Your task to perform on an android device: Open Google Chrome and open the bookmarks view Image 0: 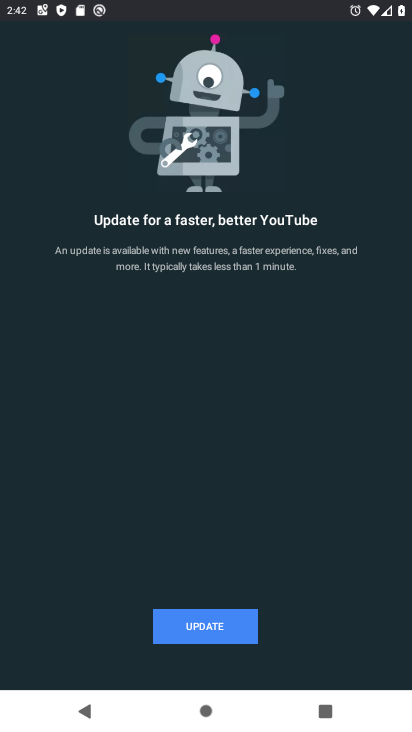
Step 0: press home button
Your task to perform on an android device: Open Google Chrome and open the bookmarks view Image 1: 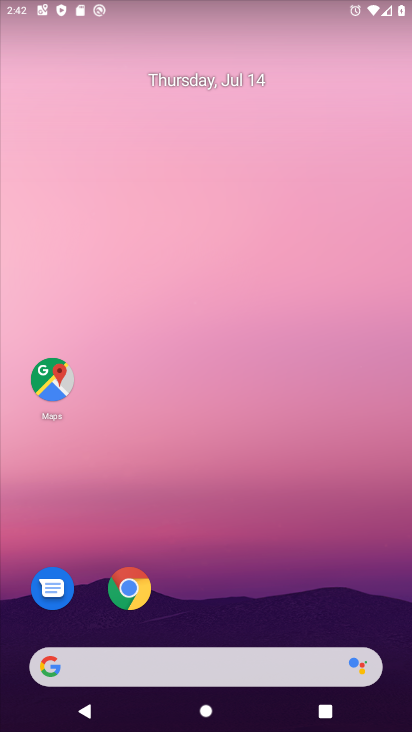
Step 1: drag from (285, 485) to (320, 245)
Your task to perform on an android device: Open Google Chrome and open the bookmarks view Image 2: 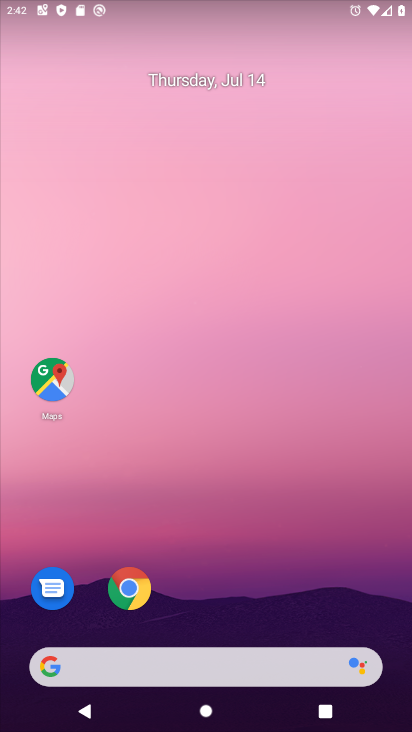
Step 2: click (126, 600)
Your task to perform on an android device: Open Google Chrome and open the bookmarks view Image 3: 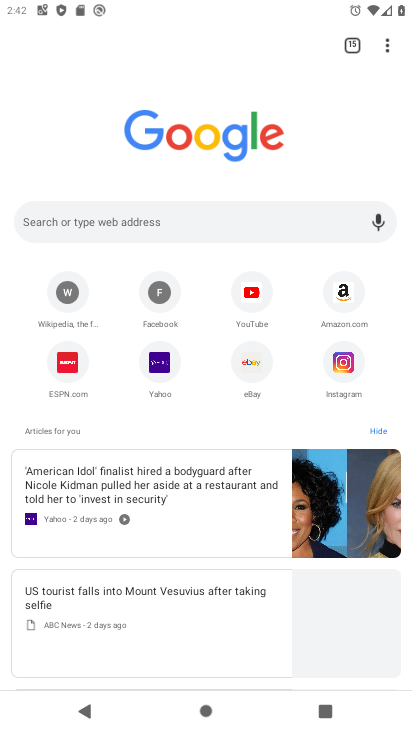
Step 3: click (384, 37)
Your task to perform on an android device: Open Google Chrome and open the bookmarks view Image 4: 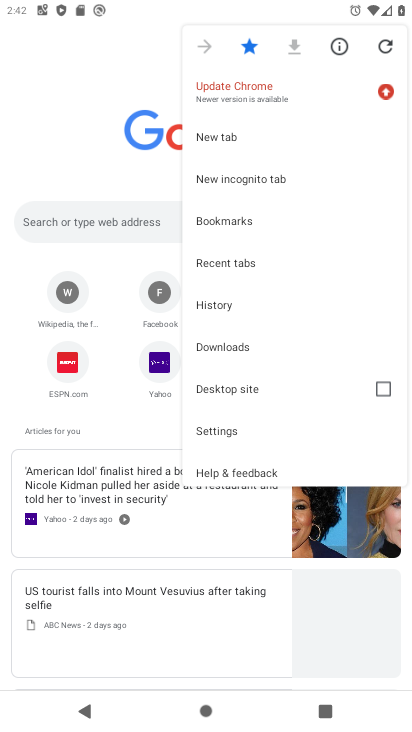
Step 4: click (235, 222)
Your task to perform on an android device: Open Google Chrome and open the bookmarks view Image 5: 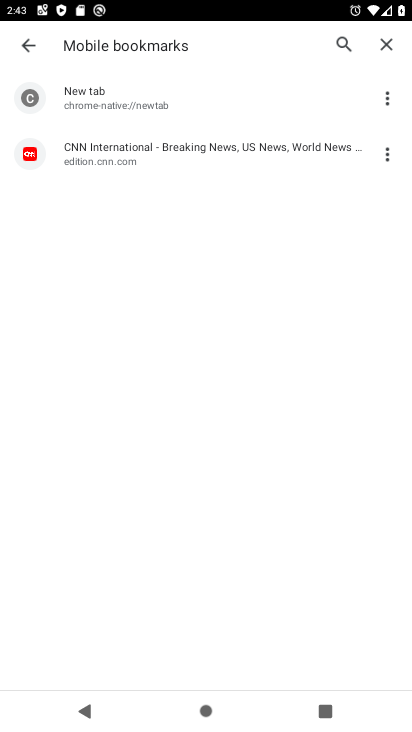
Step 5: task complete